Your task to perform on an android device: Check the news Image 0: 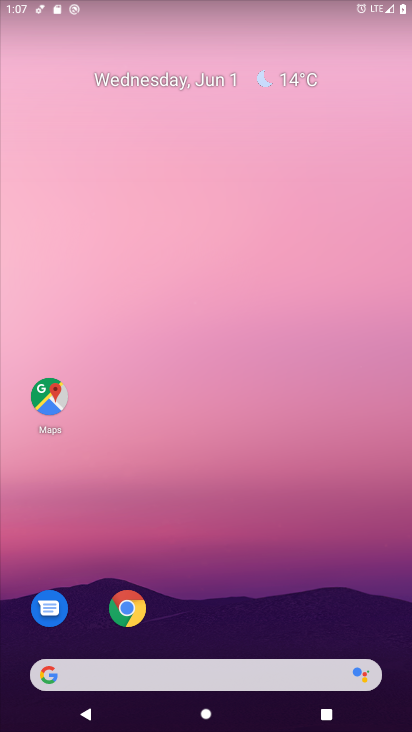
Step 0: click (206, 667)
Your task to perform on an android device: Check the news Image 1: 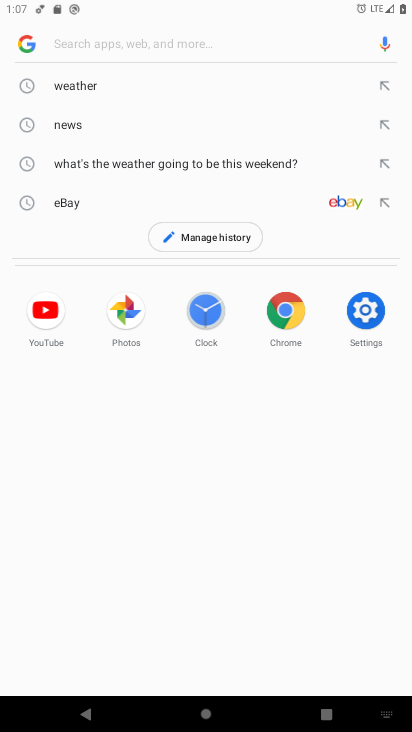
Step 1: click (88, 135)
Your task to perform on an android device: Check the news Image 2: 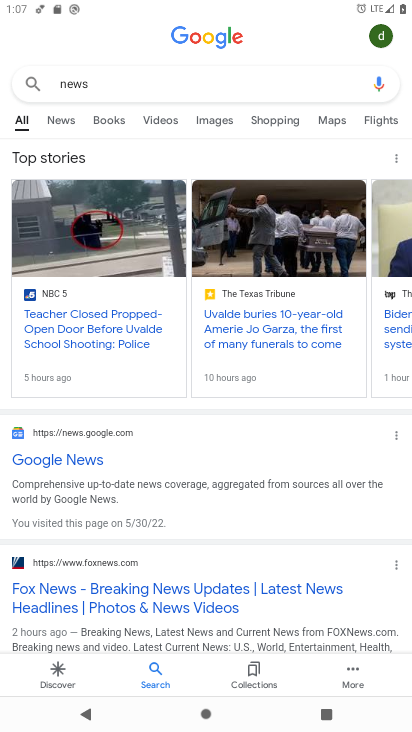
Step 2: task complete